Your task to perform on an android device: visit the assistant section in the google photos Image 0: 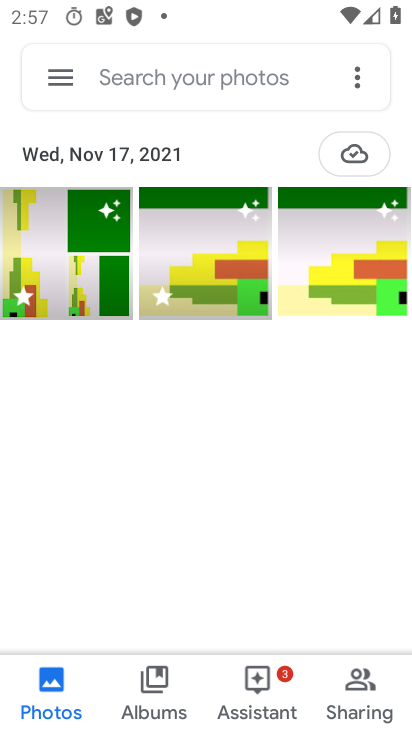
Step 0: click (255, 677)
Your task to perform on an android device: visit the assistant section in the google photos Image 1: 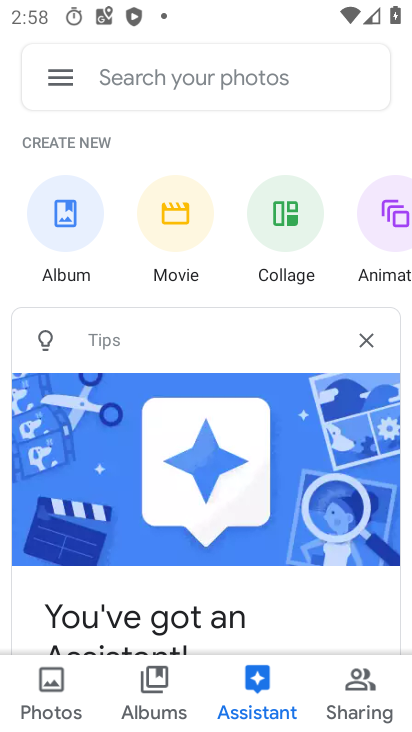
Step 1: task complete